Your task to perform on an android device: turn on notifications settings in the gmail app Image 0: 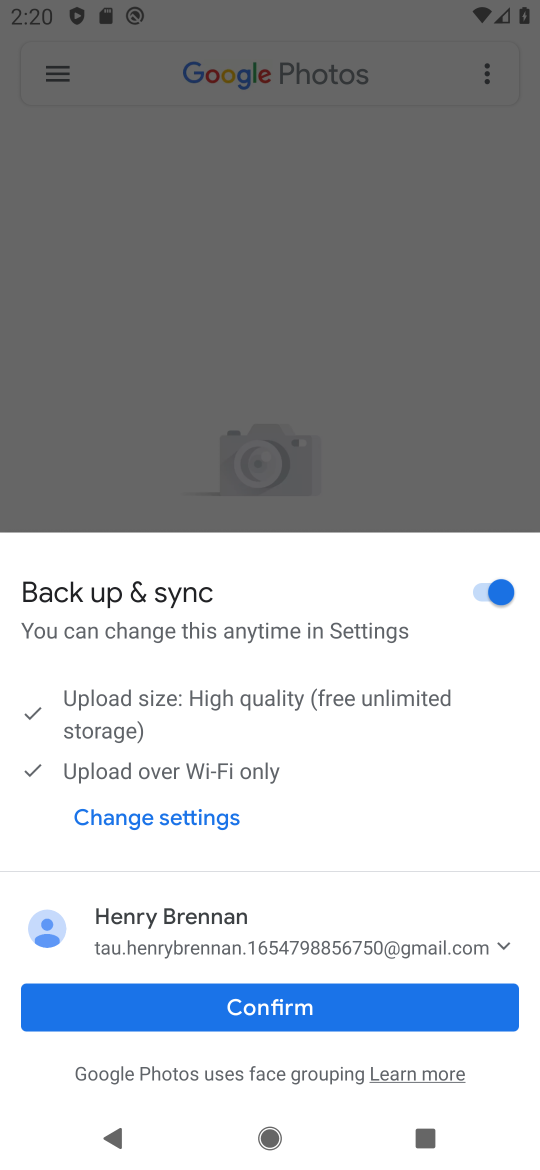
Step 0: press home button
Your task to perform on an android device: turn on notifications settings in the gmail app Image 1: 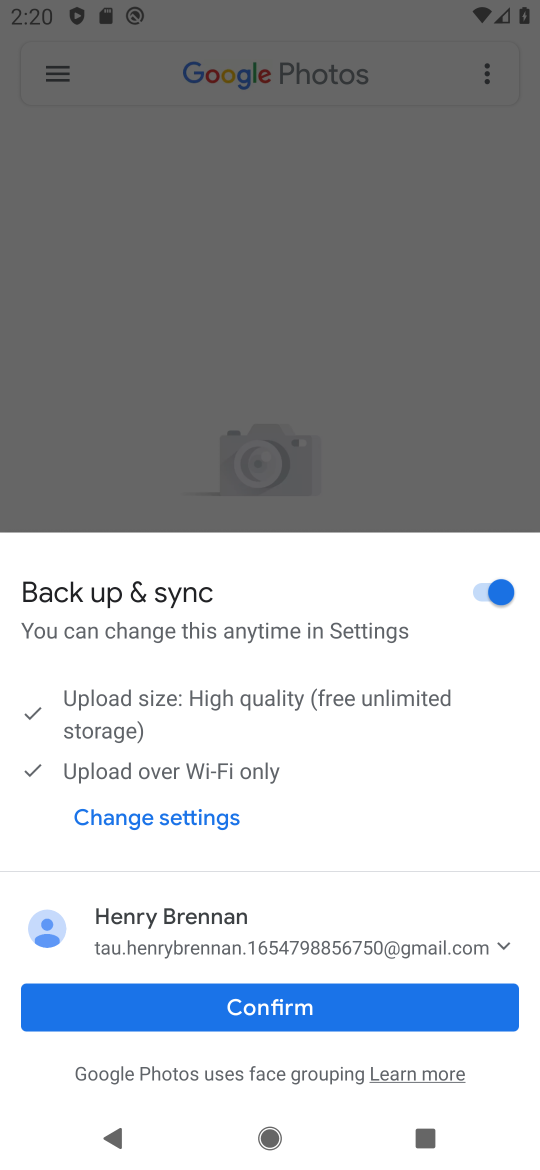
Step 1: press home button
Your task to perform on an android device: turn on notifications settings in the gmail app Image 2: 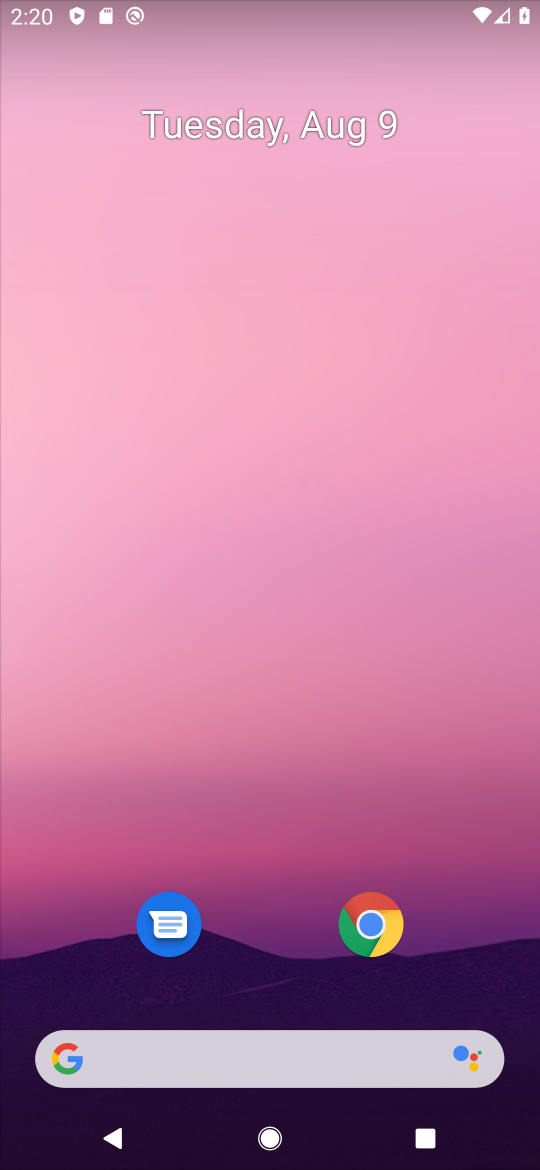
Step 2: drag from (306, 839) to (302, 10)
Your task to perform on an android device: turn on notifications settings in the gmail app Image 3: 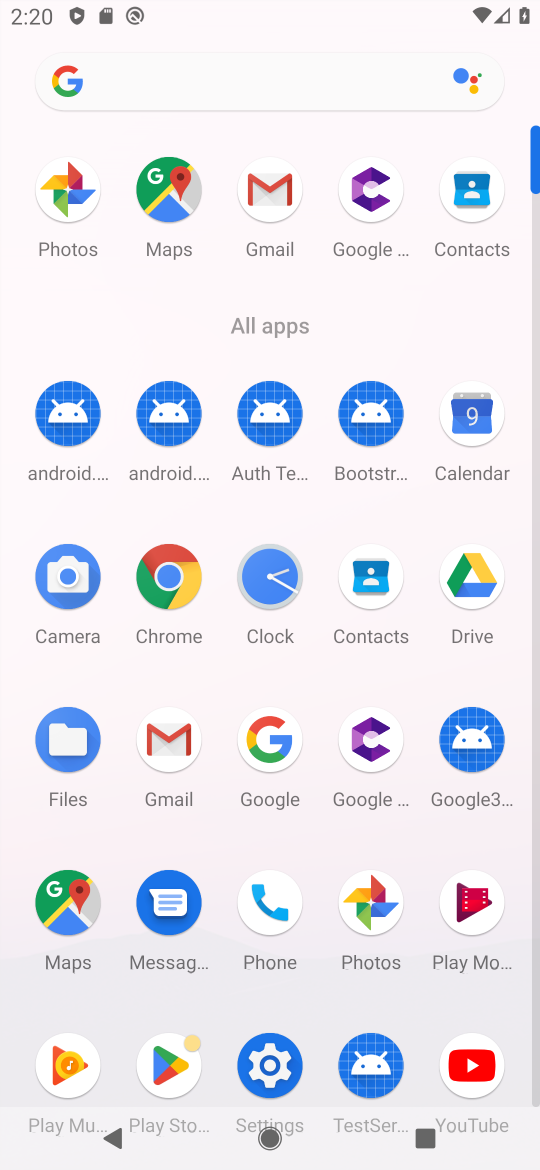
Step 3: click (273, 199)
Your task to perform on an android device: turn on notifications settings in the gmail app Image 4: 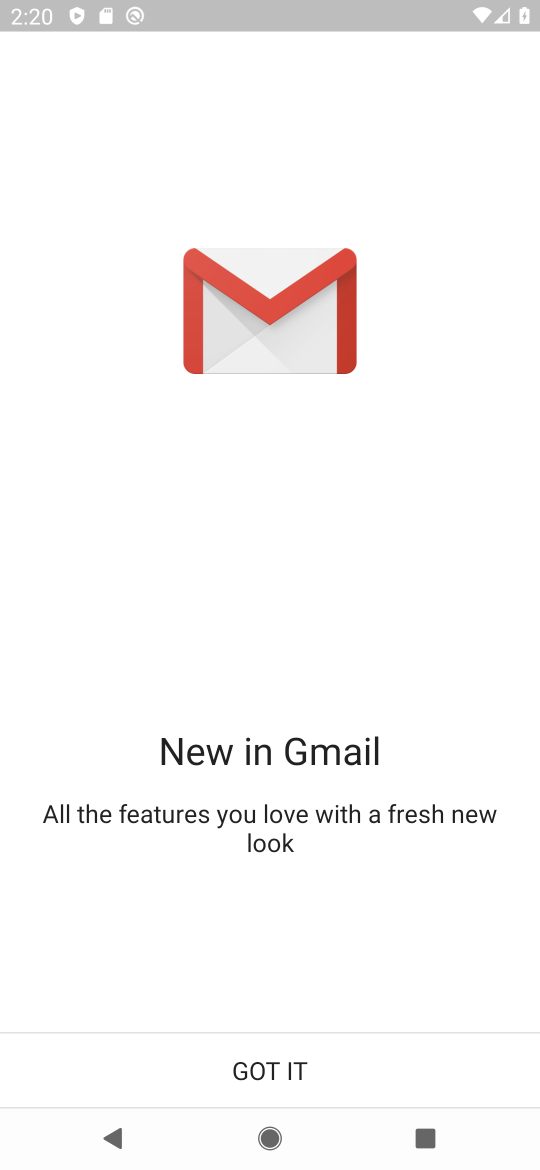
Step 4: click (313, 1076)
Your task to perform on an android device: turn on notifications settings in the gmail app Image 5: 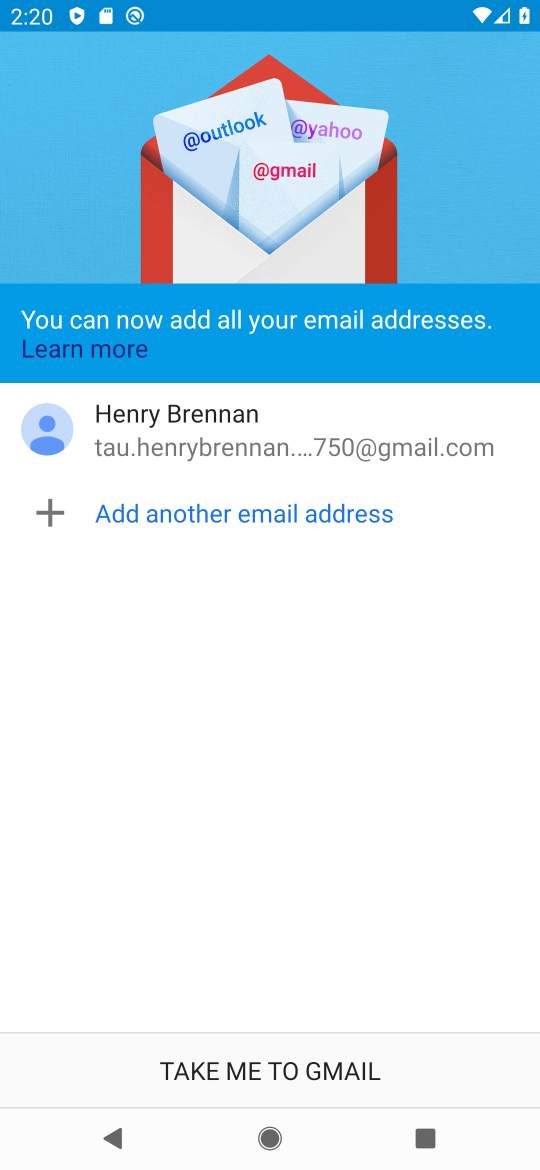
Step 5: click (313, 1070)
Your task to perform on an android device: turn on notifications settings in the gmail app Image 6: 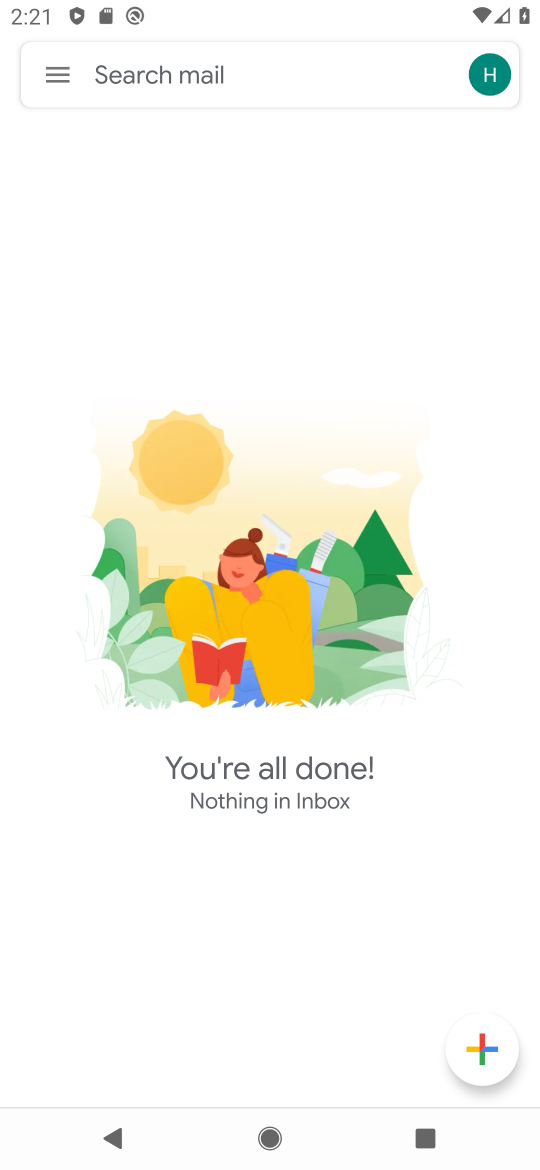
Step 6: click (63, 83)
Your task to perform on an android device: turn on notifications settings in the gmail app Image 7: 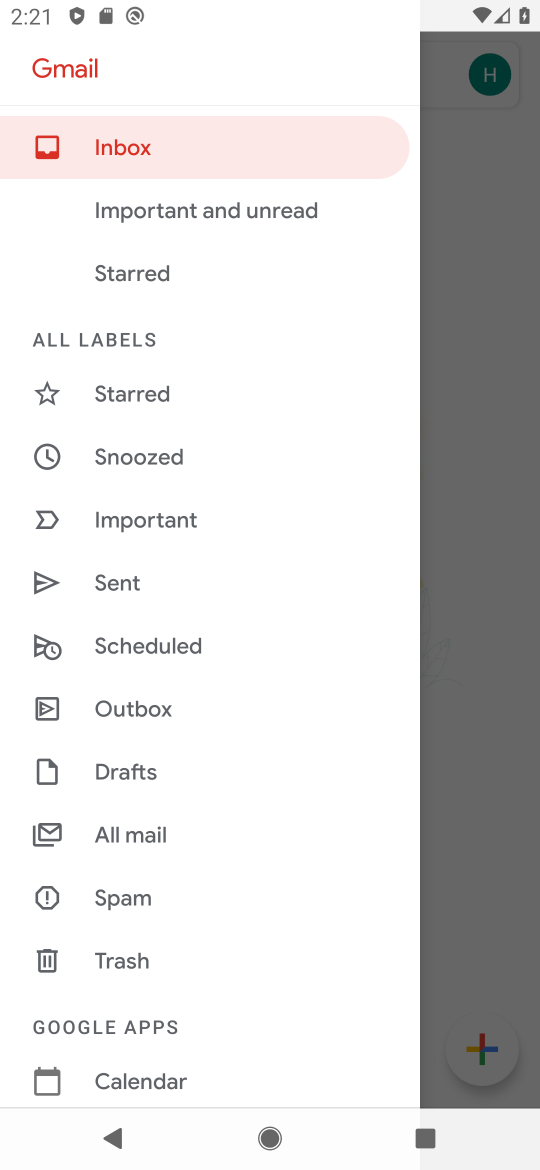
Step 7: drag from (201, 833) to (186, 603)
Your task to perform on an android device: turn on notifications settings in the gmail app Image 8: 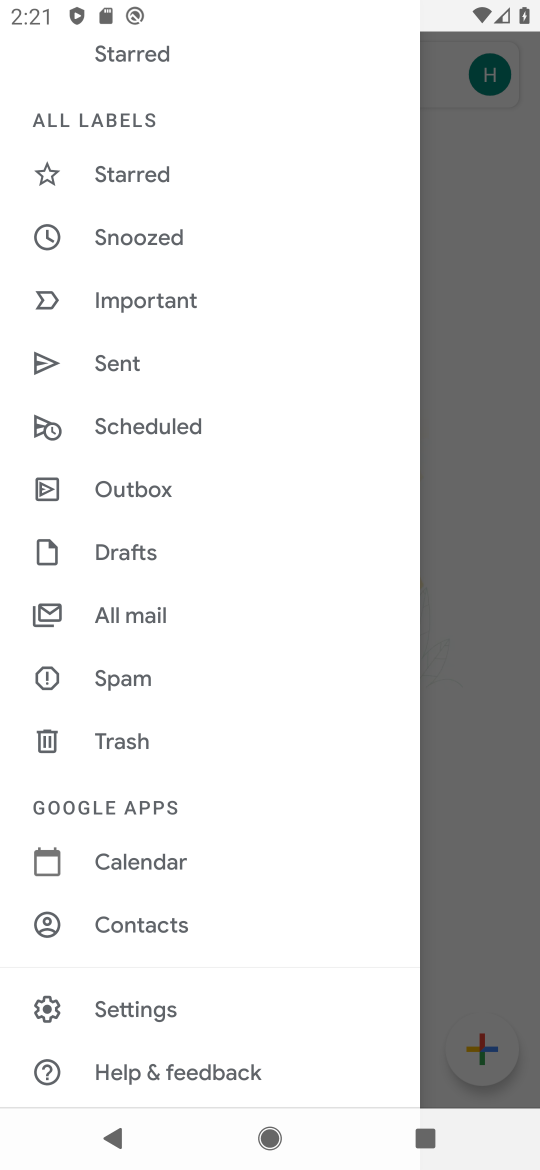
Step 8: click (149, 993)
Your task to perform on an android device: turn on notifications settings in the gmail app Image 9: 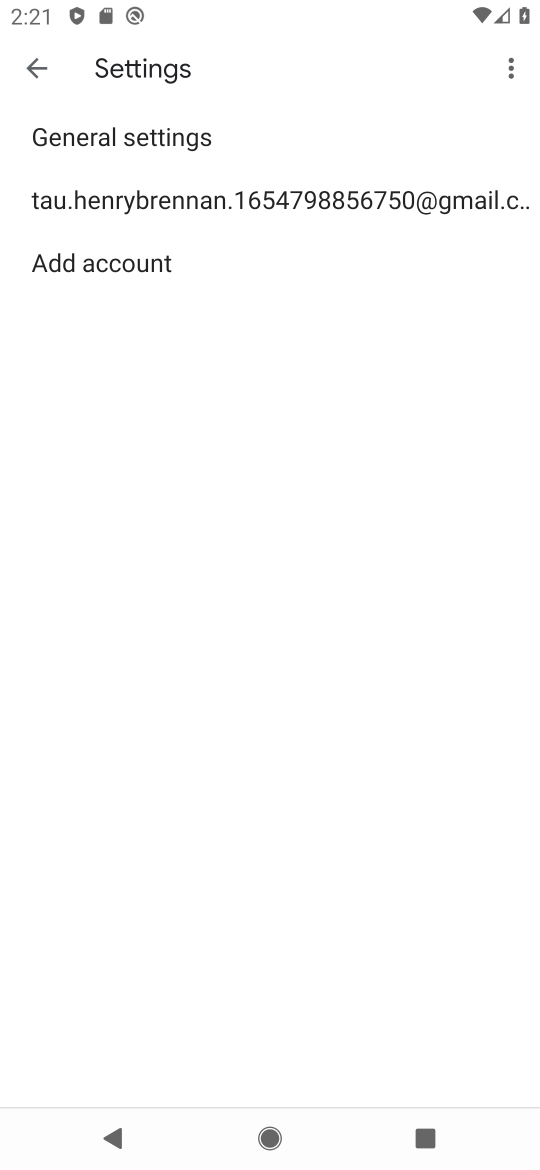
Step 9: click (277, 198)
Your task to perform on an android device: turn on notifications settings in the gmail app Image 10: 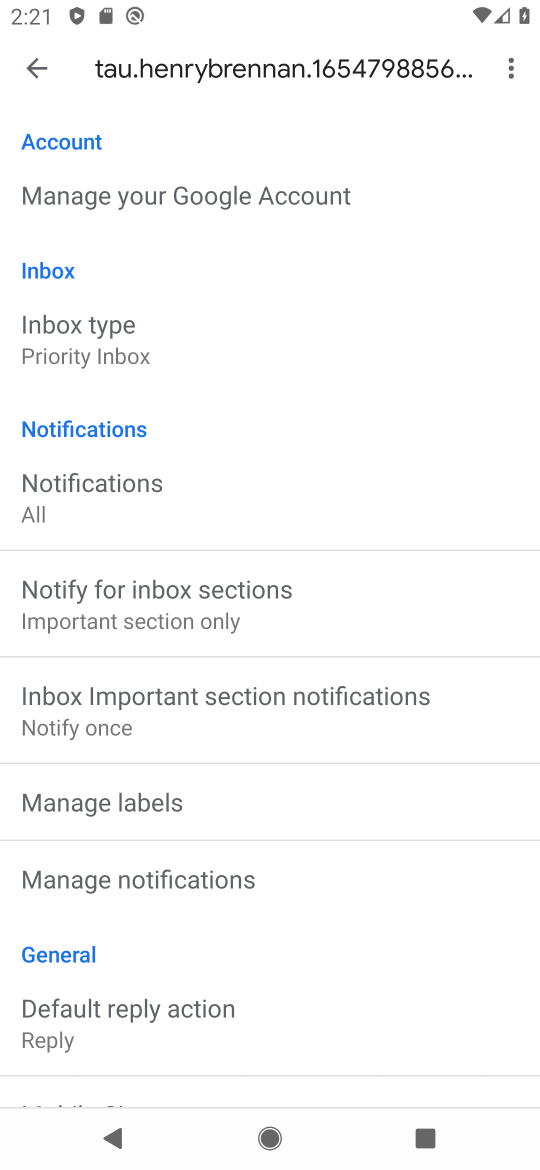
Step 10: click (178, 876)
Your task to perform on an android device: turn on notifications settings in the gmail app Image 11: 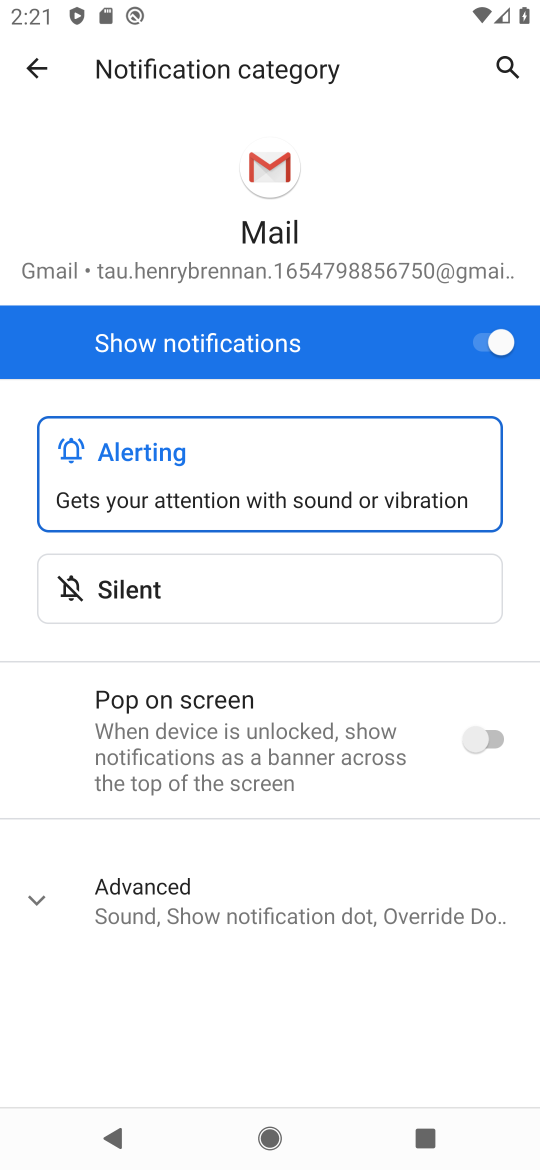
Step 11: task complete